Your task to perform on an android device: Go to sound settings Image 0: 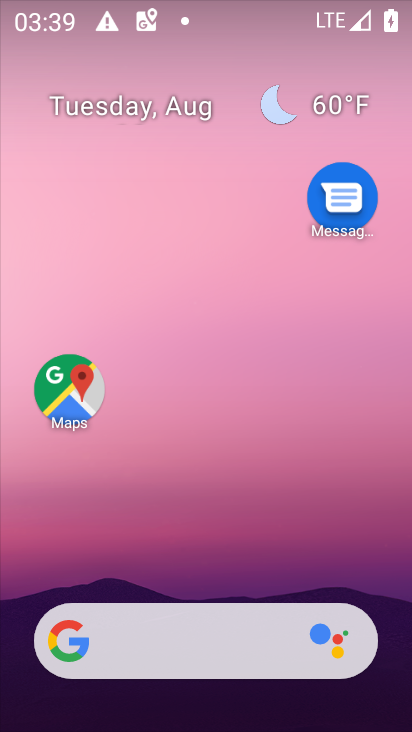
Step 0: drag from (200, 584) to (89, 0)
Your task to perform on an android device: Go to sound settings Image 1: 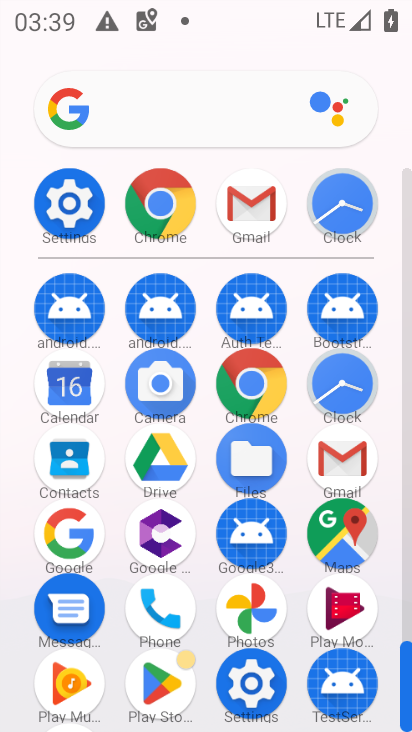
Step 1: click (84, 190)
Your task to perform on an android device: Go to sound settings Image 2: 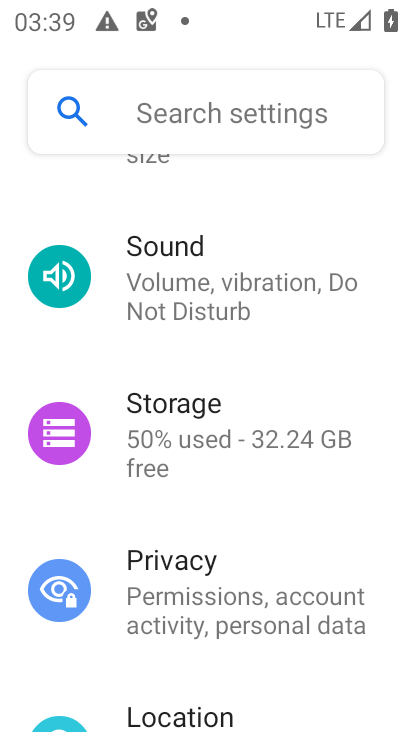
Step 2: click (177, 336)
Your task to perform on an android device: Go to sound settings Image 3: 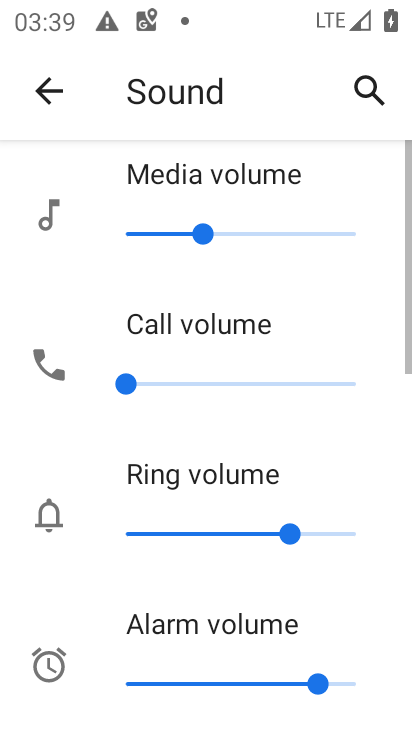
Step 3: task complete